Your task to perform on an android device: add a label to a message in the gmail app Image 0: 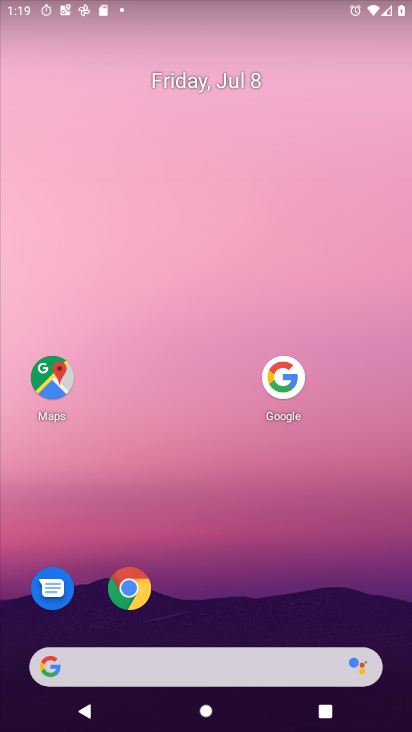
Step 0: drag from (137, 664) to (285, 28)
Your task to perform on an android device: add a label to a message in the gmail app Image 1: 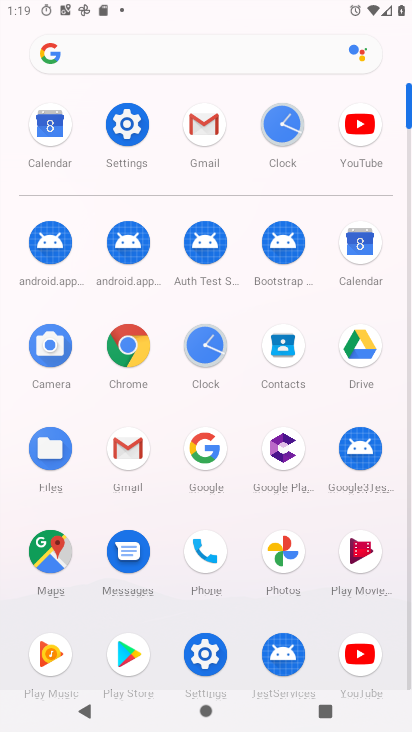
Step 1: click (209, 131)
Your task to perform on an android device: add a label to a message in the gmail app Image 2: 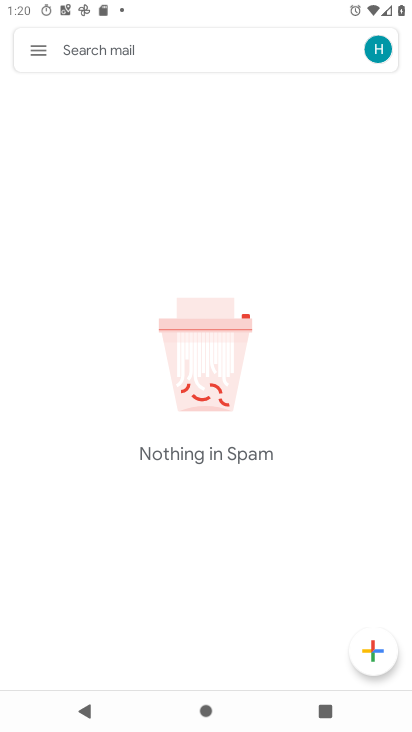
Step 2: click (31, 55)
Your task to perform on an android device: add a label to a message in the gmail app Image 3: 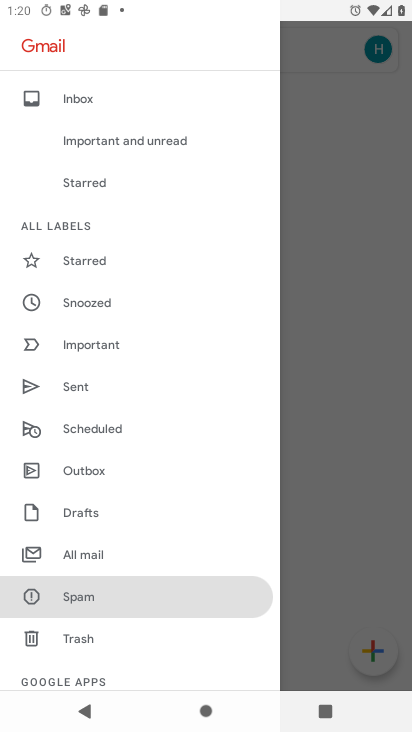
Step 3: click (92, 93)
Your task to perform on an android device: add a label to a message in the gmail app Image 4: 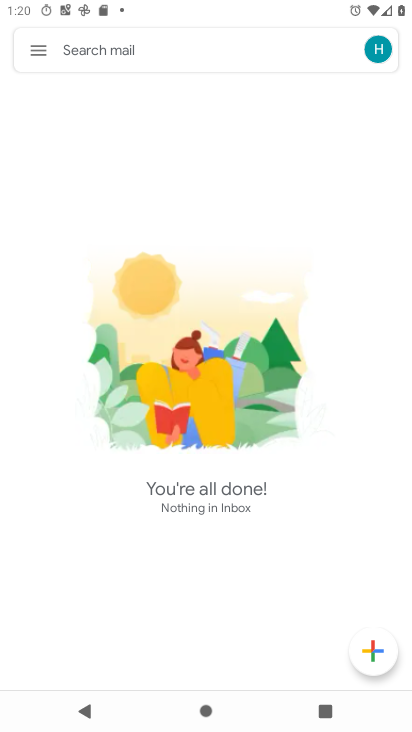
Step 4: task complete